Your task to perform on an android device: Open Amazon Image 0: 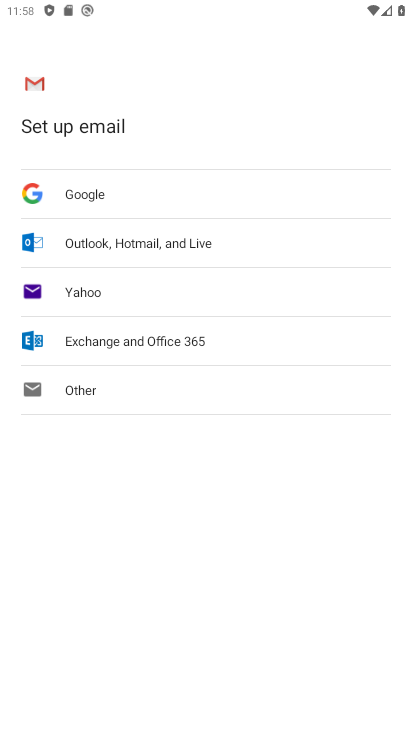
Step 0: press back button
Your task to perform on an android device: Open Amazon Image 1: 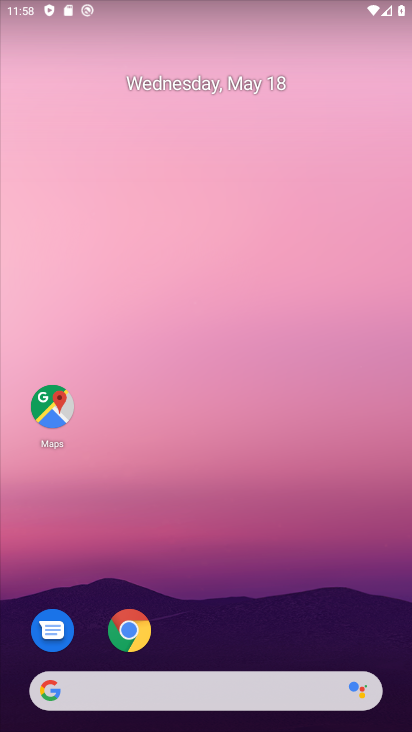
Step 1: drag from (381, 363) to (381, 322)
Your task to perform on an android device: Open Amazon Image 2: 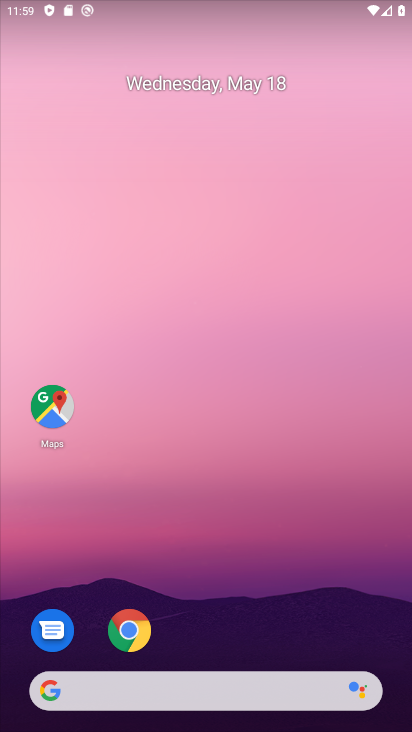
Step 2: click (125, 637)
Your task to perform on an android device: Open Amazon Image 3: 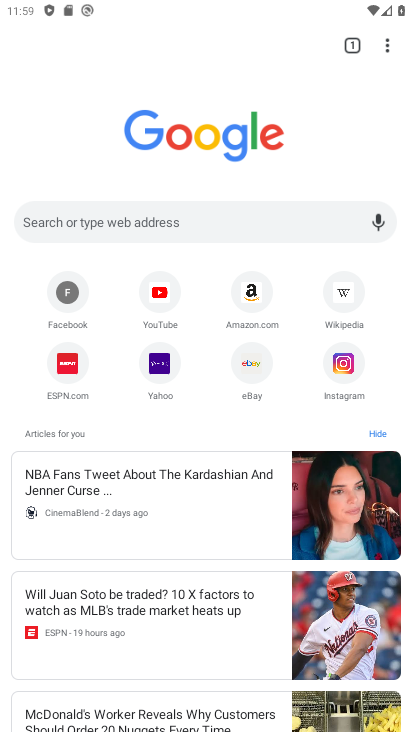
Step 3: click (193, 222)
Your task to perform on an android device: Open Amazon Image 4: 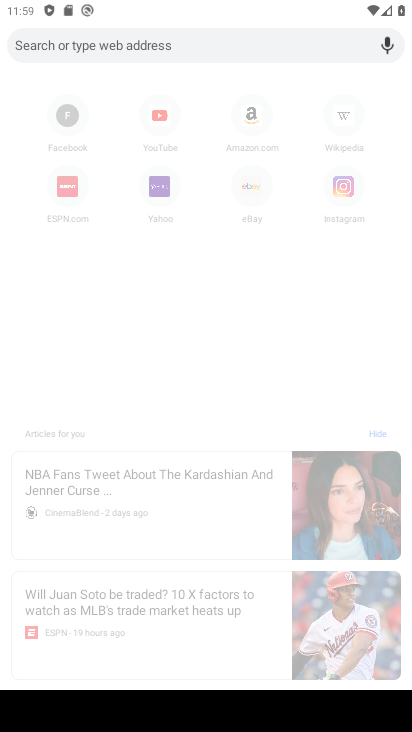
Step 4: type "Amazon"
Your task to perform on an android device: Open Amazon Image 5: 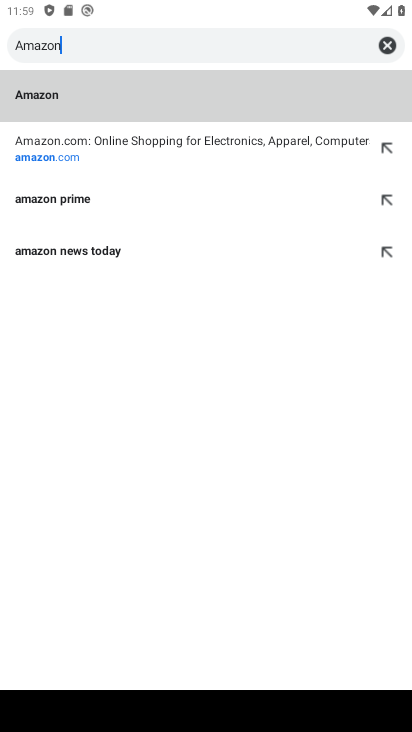
Step 5: click (39, 91)
Your task to perform on an android device: Open Amazon Image 6: 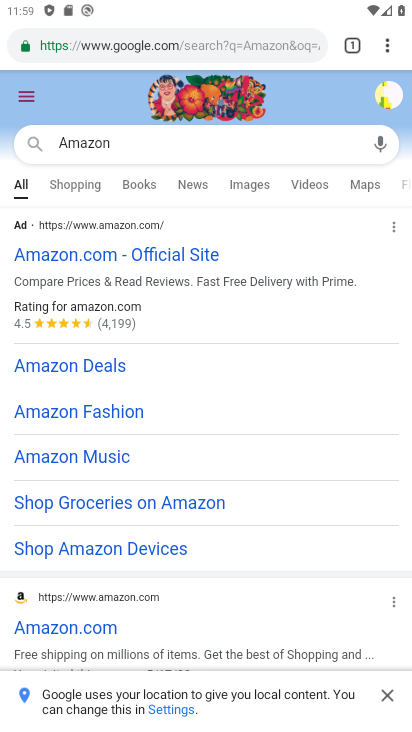
Step 6: task complete